Your task to perform on an android device: Open Yahoo.com Image 0: 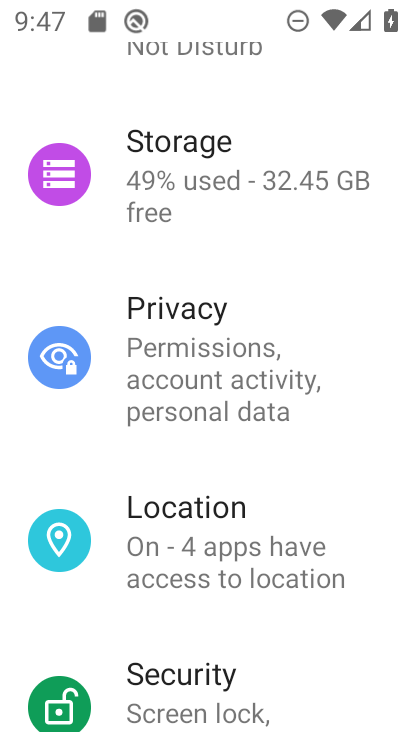
Step 0: press home button
Your task to perform on an android device: Open Yahoo.com Image 1: 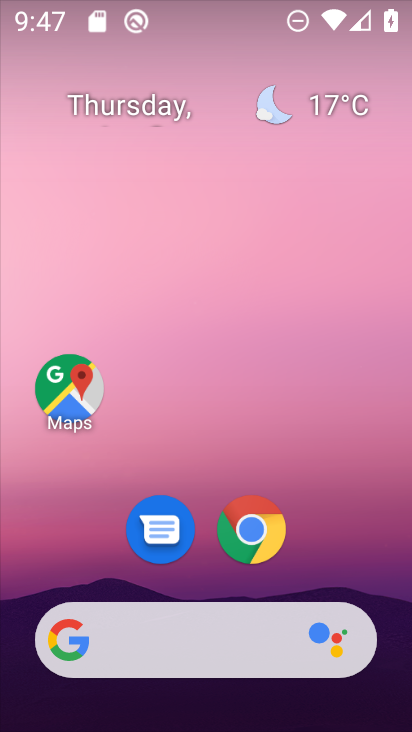
Step 1: click (258, 533)
Your task to perform on an android device: Open Yahoo.com Image 2: 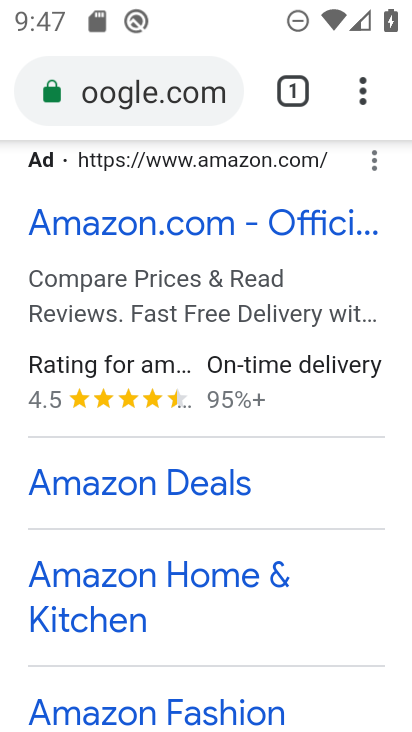
Step 2: click (226, 83)
Your task to perform on an android device: Open Yahoo.com Image 3: 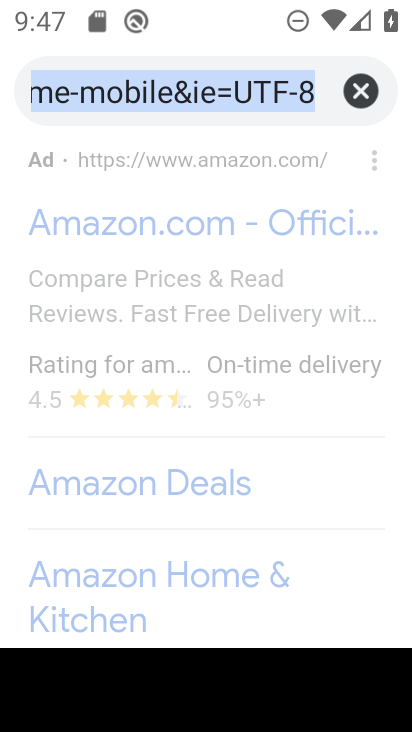
Step 3: click (360, 82)
Your task to perform on an android device: Open Yahoo.com Image 4: 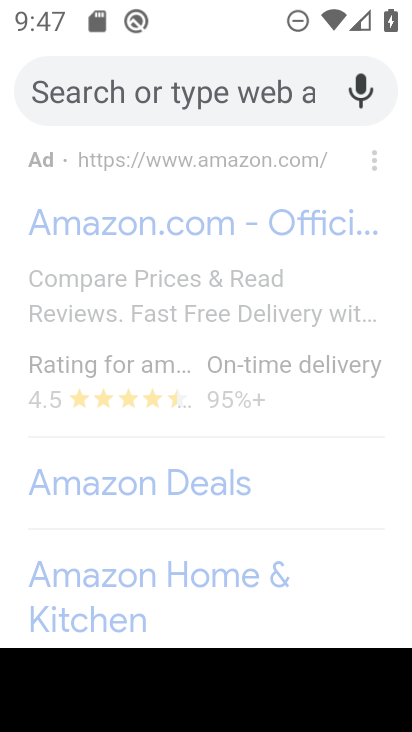
Step 4: type "Yahoo.com"
Your task to perform on an android device: Open Yahoo.com Image 5: 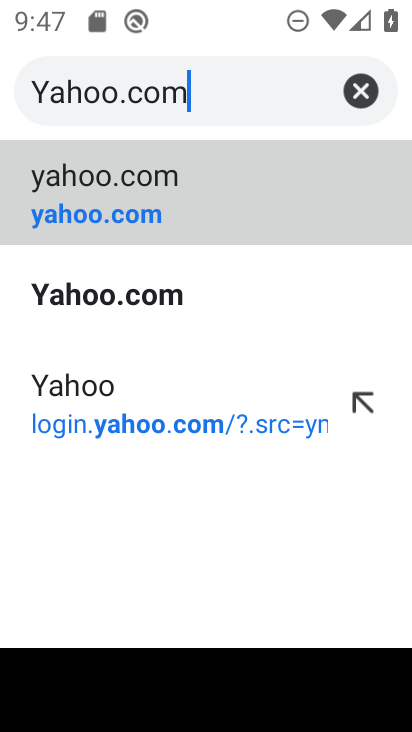
Step 5: click (126, 304)
Your task to perform on an android device: Open Yahoo.com Image 6: 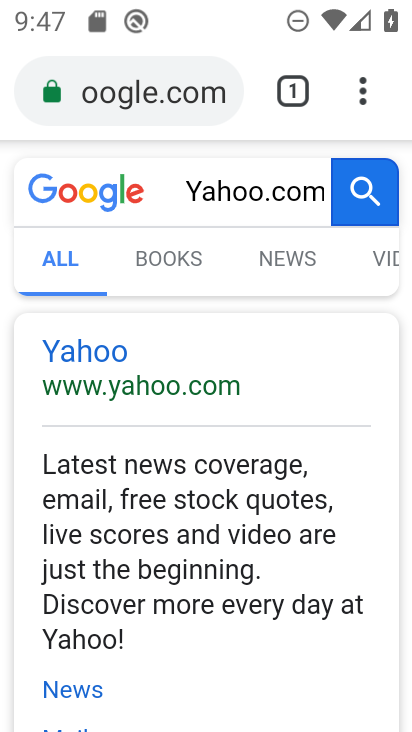
Step 6: task complete